Your task to perform on an android device: toggle sleep mode Image 0: 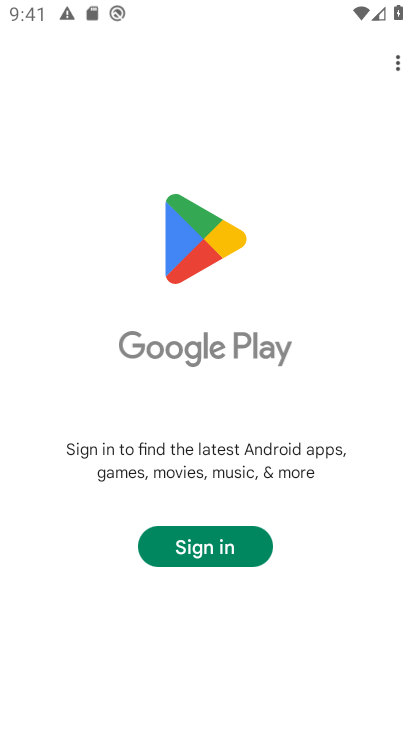
Step 0: press home button
Your task to perform on an android device: toggle sleep mode Image 1: 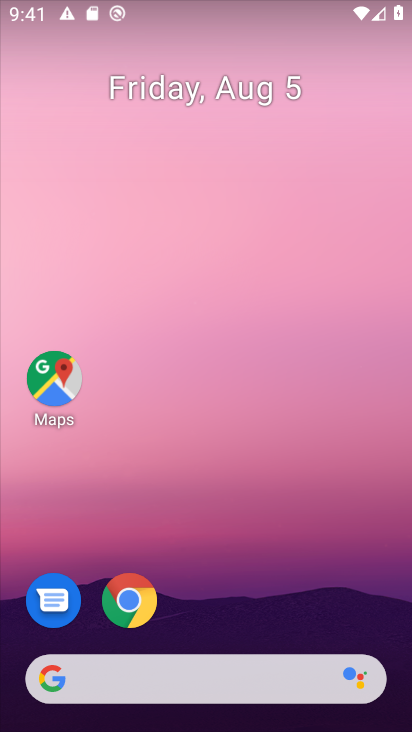
Step 1: drag from (344, 5) to (288, 493)
Your task to perform on an android device: toggle sleep mode Image 2: 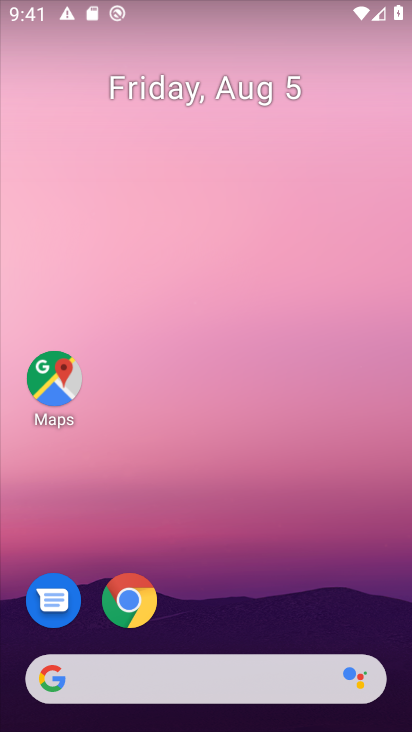
Step 2: drag from (384, 72) to (292, 581)
Your task to perform on an android device: toggle sleep mode Image 3: 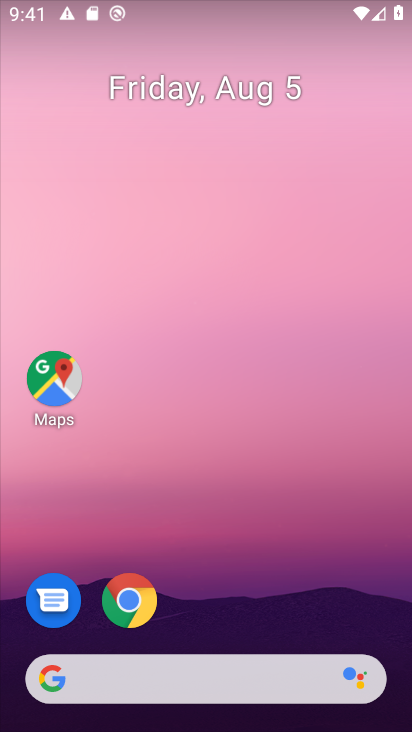
Step 3: drag from (315, 6) to (252, 461)
Your task to perform on an android device: toggle sleep mode Image 4: 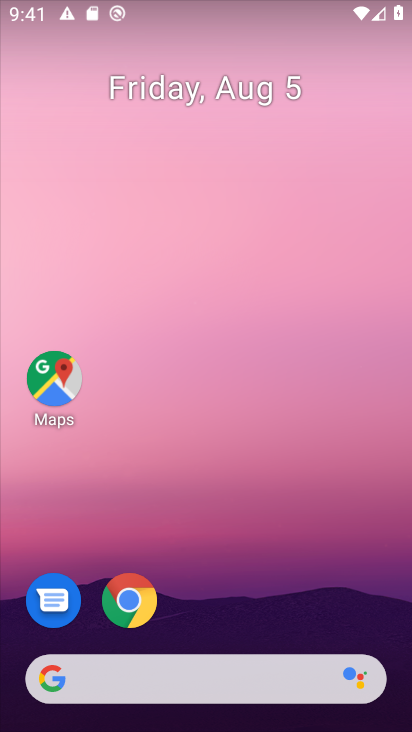
Step 4: drag from (372, 4) to (268, 648)
Your task to perform on an android device: toggle sleep mode Image 5: 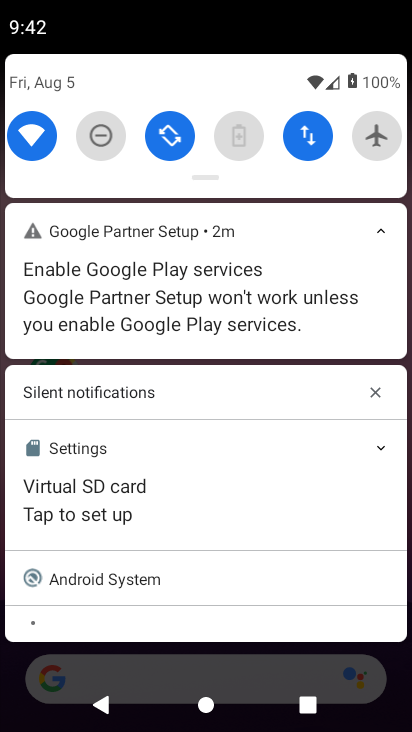
Step 5: drag from (186, 239) to (208, 561)
Your task to perform on an android device: toggle sleep mode Image 6: 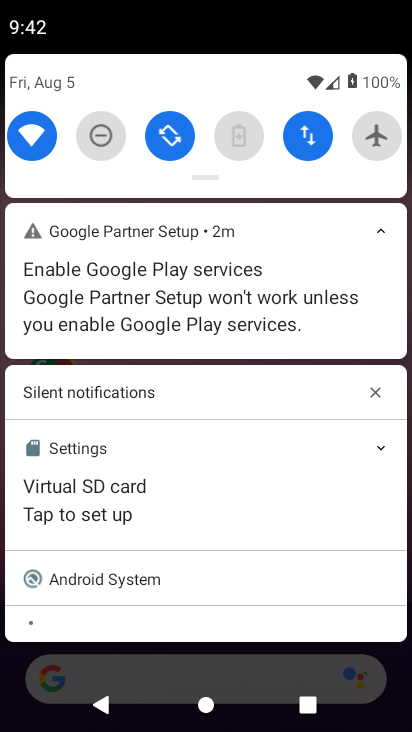
Step 6: drag from (91, 455) to (138, 532)
Your task to perform on an android device: toggle sleep mode Image 7: 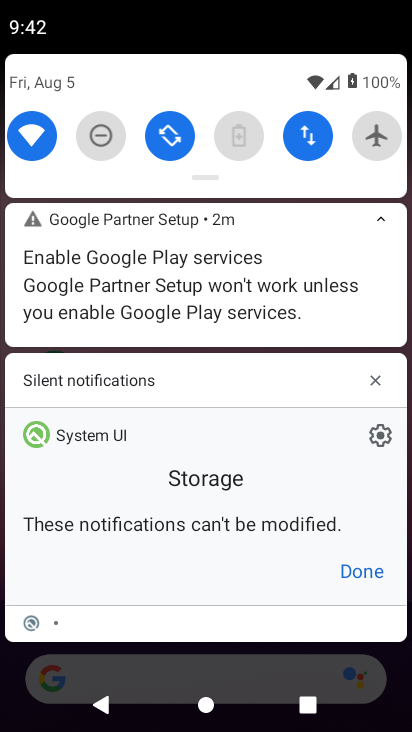
Step 7: drag from (276, 199) to (189, 664)
Your task to perform on an android device: toggle sleep mode Image 8: 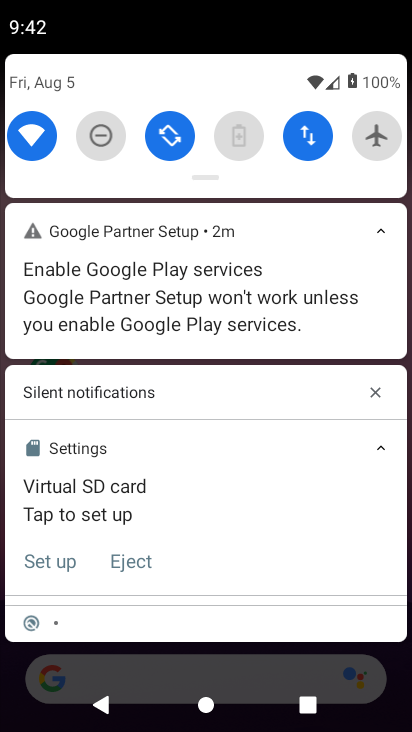
Step 8: drag from (213, 165) to (336, 731)
Your task to perform on an android device: toggle sleep mode Image 9: 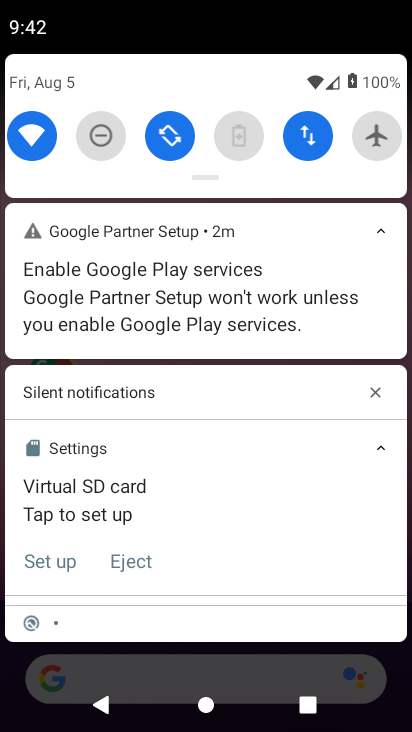
Step 9: drag from (389, 692) to (110, 717)
Your task to perform on an android device: toggle sleep mode Image 10: 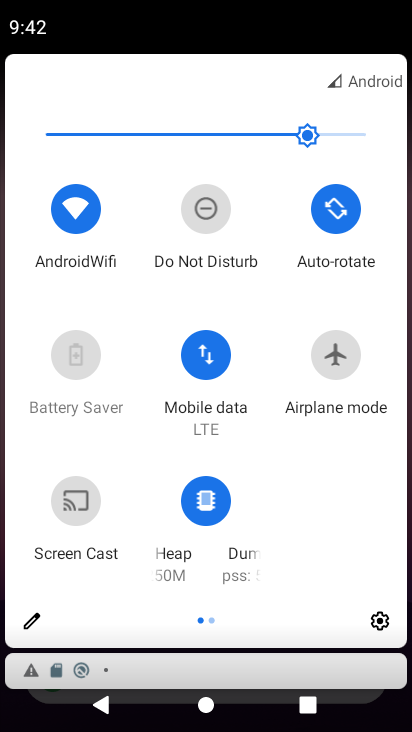
Step 10: click (38, 619)
Your task to perform on an android device: toggle sleep mode Image 11: 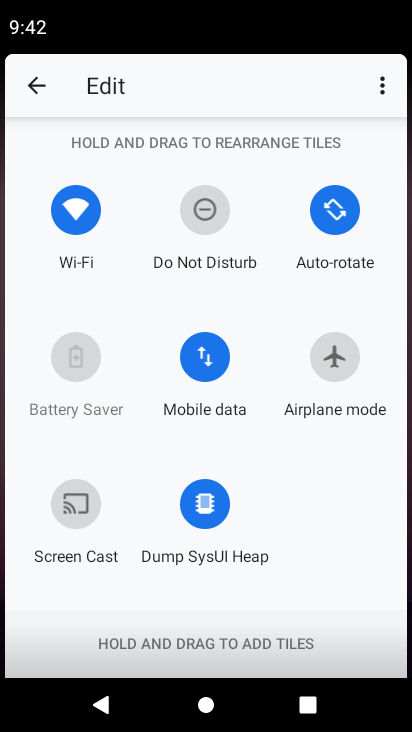
Step 11: task complete